Your task to perform on an android device: Search for Mexican restaurants on Maps Image 0: 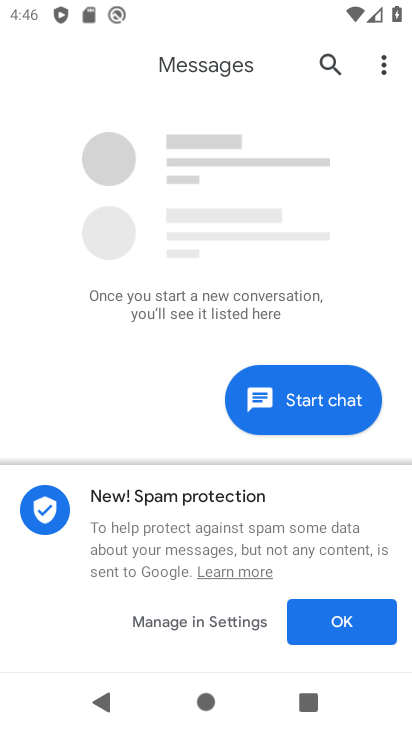
Step 0: press home button
Your task to perform on an android device: Search for Mexican restaurants on Maps Image 1: 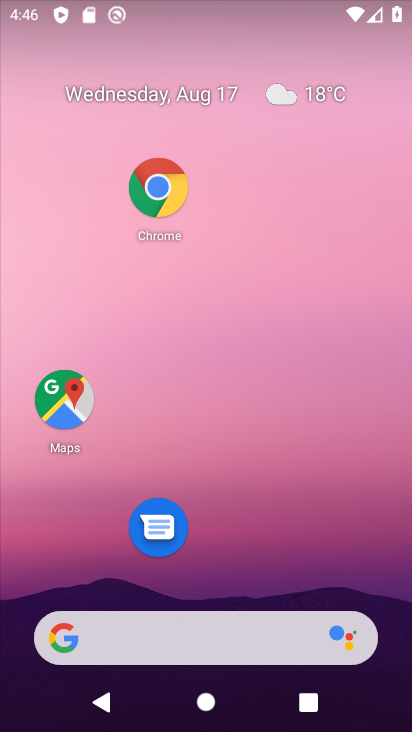
Step 1: click (46, 395)
Your task to perform on an android device: Search for Mexican restaurants on Maps Image 2: 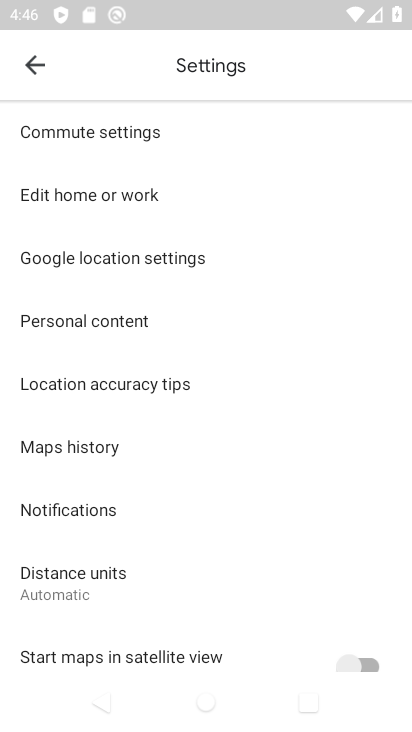
Step 2: click (26, 60)
Your task to perform on an android device: Search for Mexican restaurants on Maps Image 3: 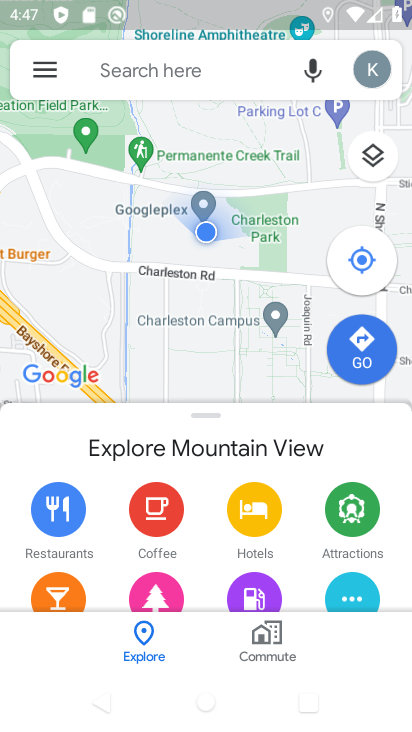
Step 3: click (124, 68)
Your task to perform on an android device: Search for Mexican restaurants on Maps Image 4: 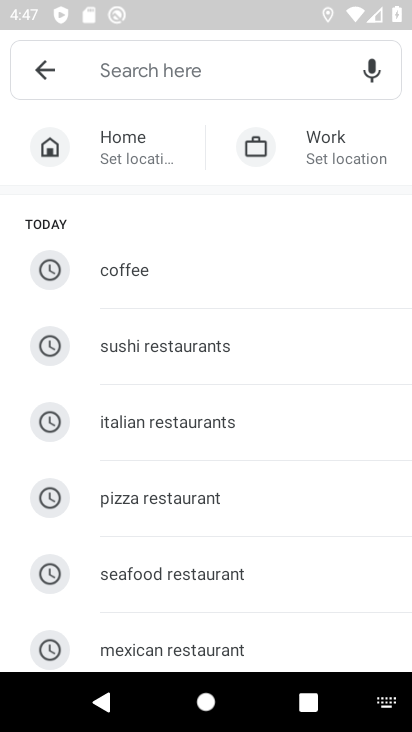
Step 4: click (143, 640)
Your task to perform on an android device: Search for Mexican restaurants on Maps Image 5: 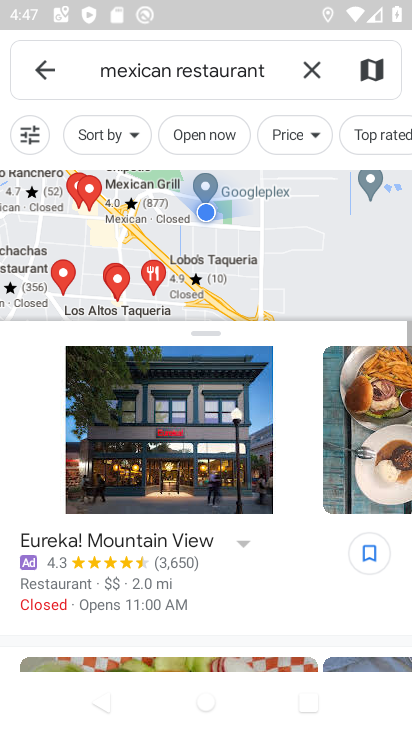
Step 5: task complete